Your task to perform on an android device: Open location settings Image 0: 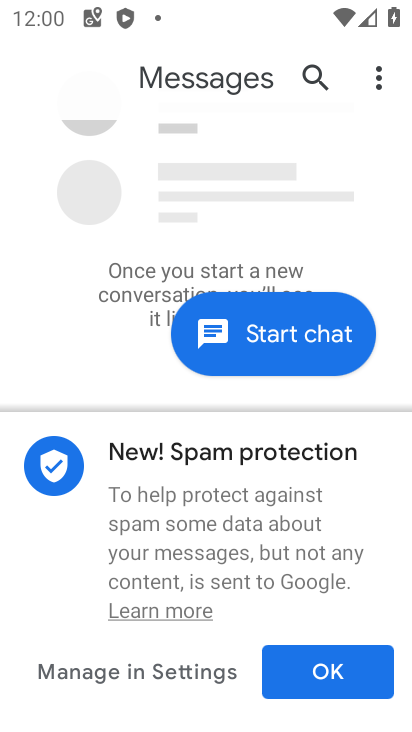
Step 0: press home button
Your task to perform on an android device: Open location settings Image 1: 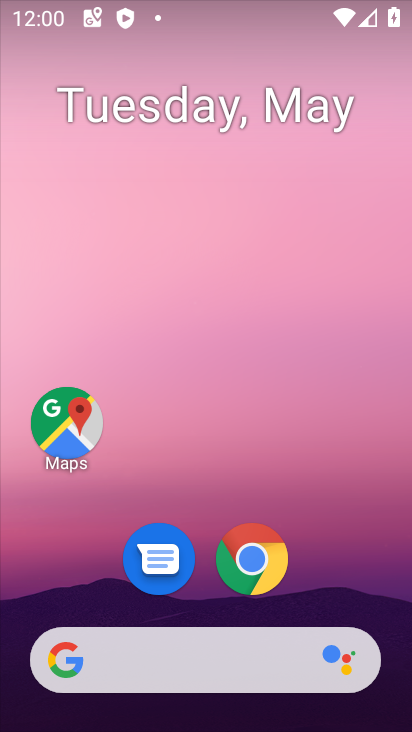
Step 1: drag from (328, 534) to (330, 211)
Your task to perform on an android device: Open location settings Image 2: 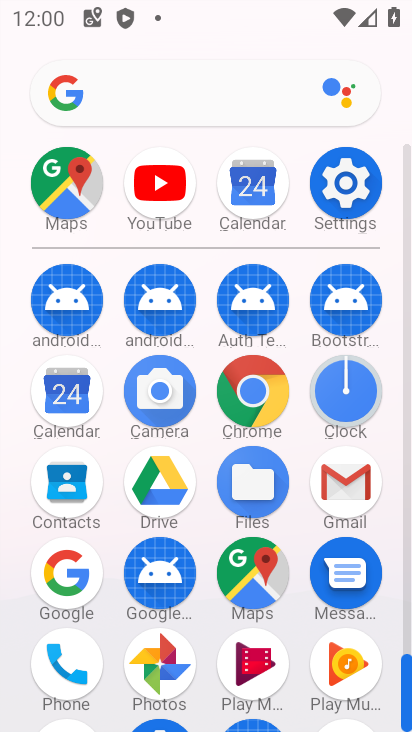
Step 2: click (359, 186)
Your task to perform on an android device: Open location settings Image 3: 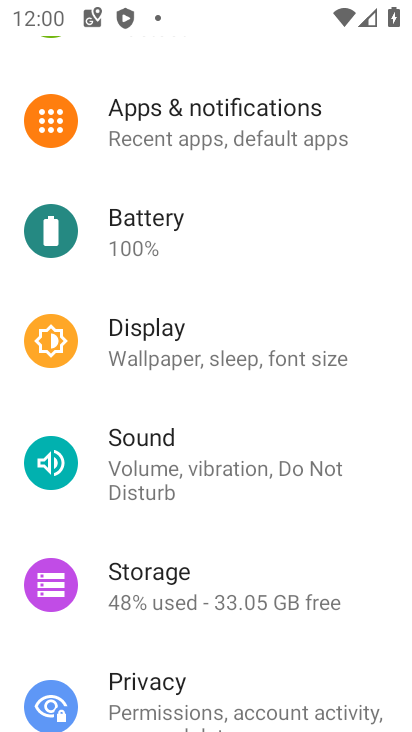
Step 3: drag from (161, 684) to (191, 186)
Your task to perform on an android device: Open location settings Image 4: 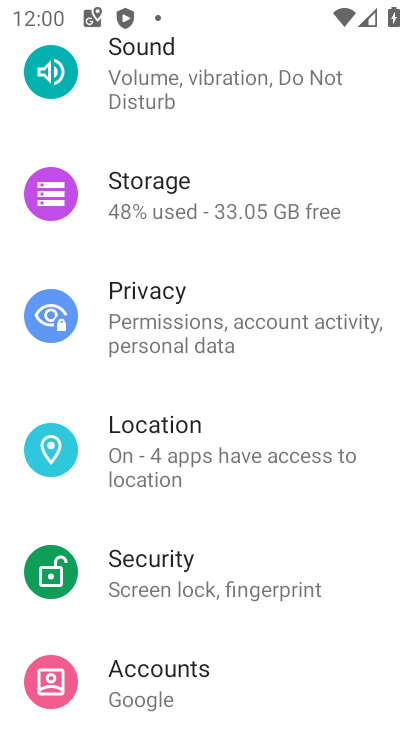
Step 4: click (179, 445)
Your task to perform on an android device: Open location settings Image 5: 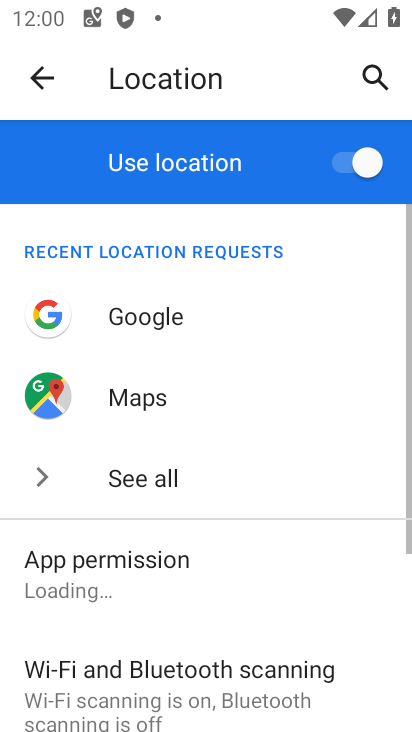
Step 5: task complete